Your task to perform on an android device: open a new tab in the chrome app Image 0: 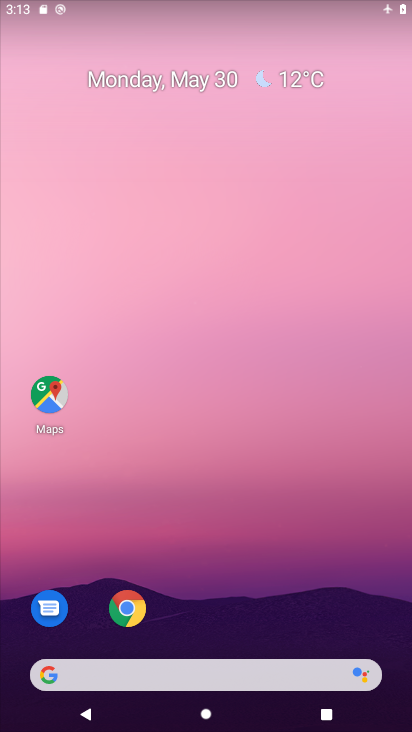
Step 0: click (126, 608)
Your task to perform on an android device: open a new tab in the chrome app Image 1: 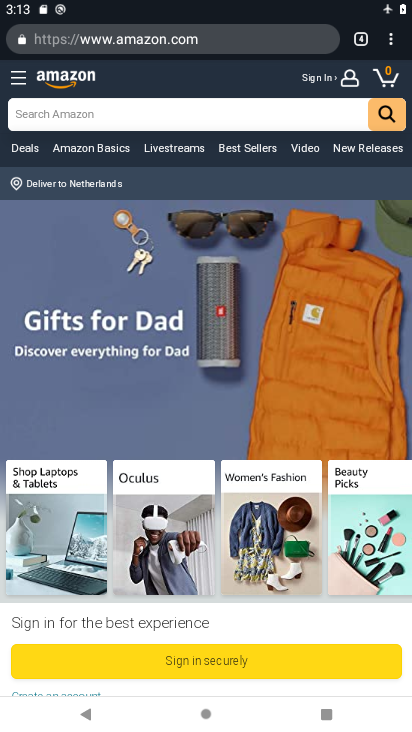
Step 1: click (384, 35)
Your task to perform on an android device: open a new tab in the chrome app Image 2: 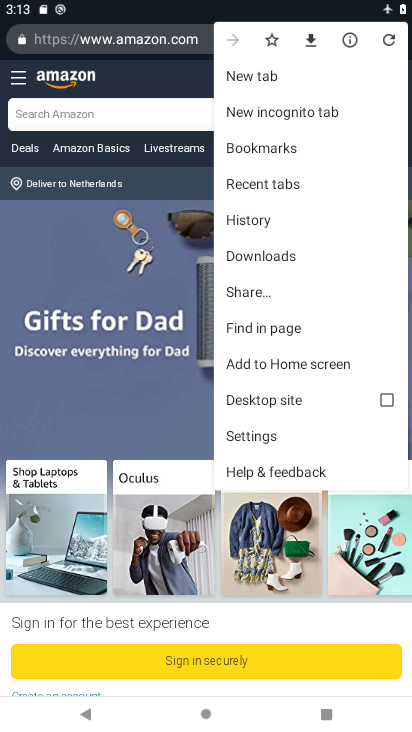
Step 2: click (289, 71)
Your task to perform on an android device: open a new tab in the chrome app Image 3: 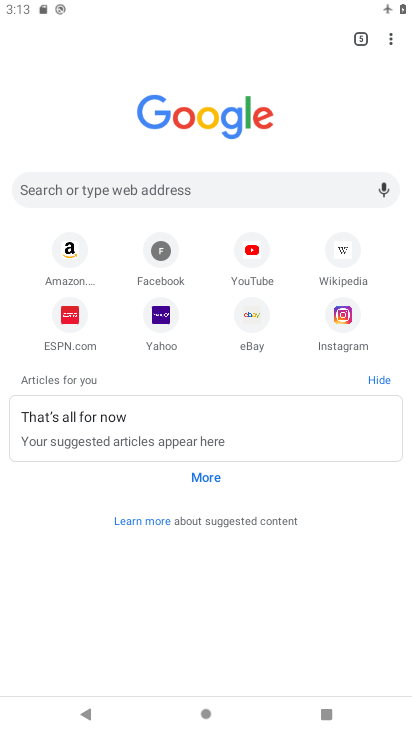
Step 3: task complete